Your task to perform on an android device: Go to Wikipedia Image 0: 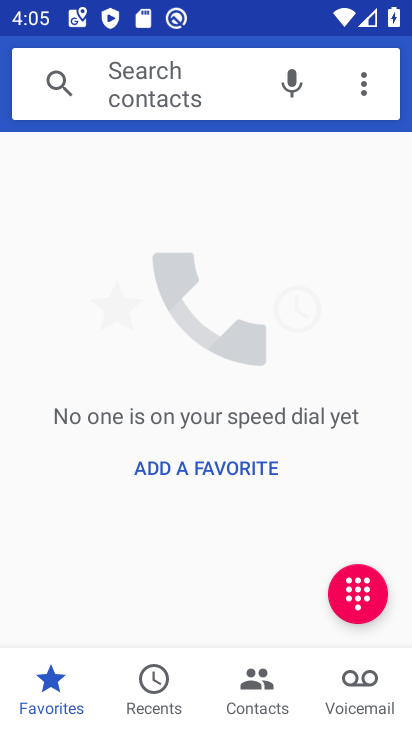
Step 0: press back button
Your task to perform on an android device: Go to Wikipedia Image 1: 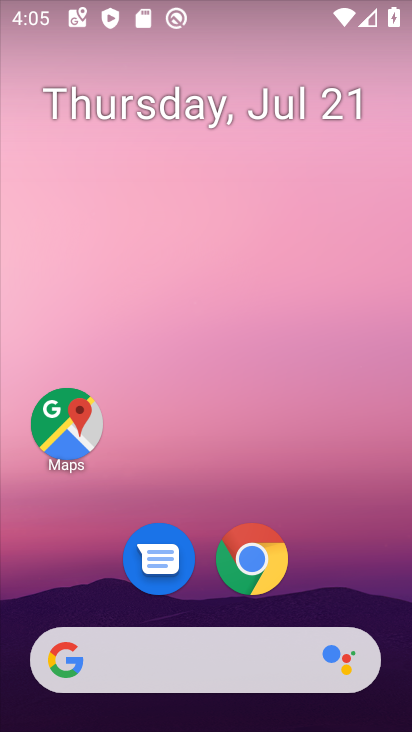
Step 1: click (270, 555)
Your task to perform on an android device: Go to Wikipedia Image 2: 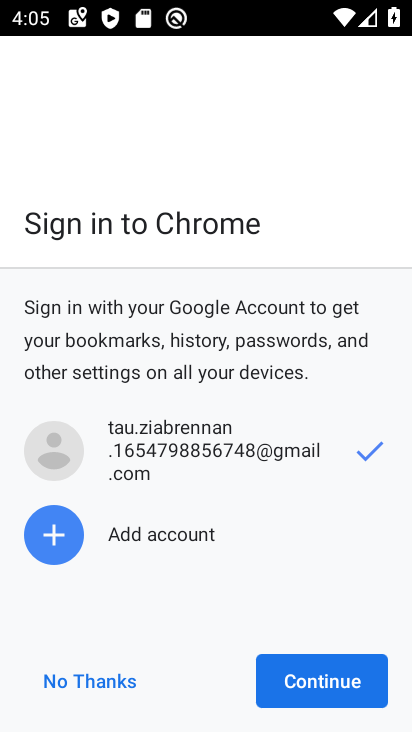
Step 2: click (342, 673)
Your task to perform on an android device: Go to Wikipedia Image 3: 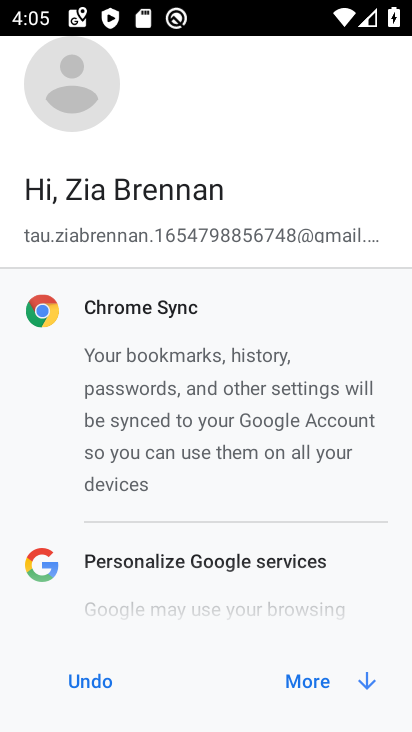
Step 3: click (285, 676)
Your task to perform on an android device: Go to Wikipedia Image 4: 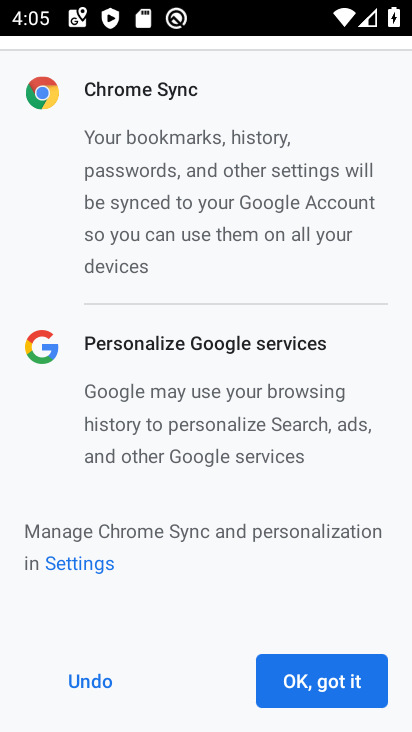
Step 4: click (313, 684)
Your task to perform on an android device: Go to Wikipedia Image 5: 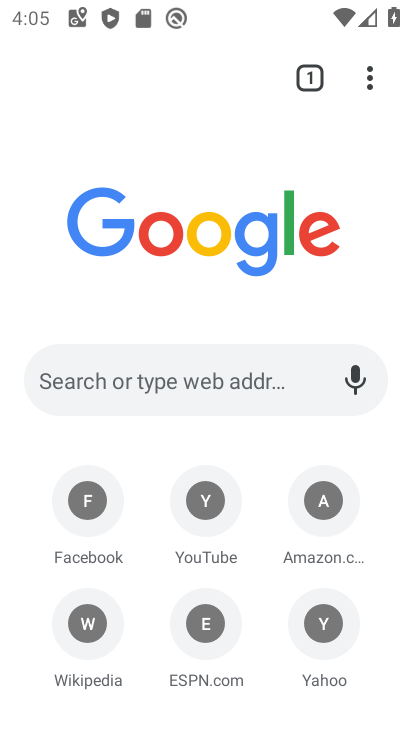
Step 5: click (89, 633)
Your task to perform on an android device: Go to Wikipedia Image 6: 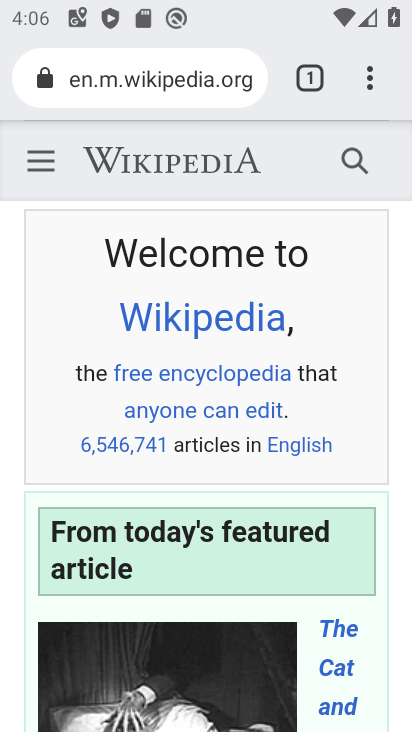
Step 6: task complete